Your task to perform on an android device: toggle pop-ups in chrome Image 0: 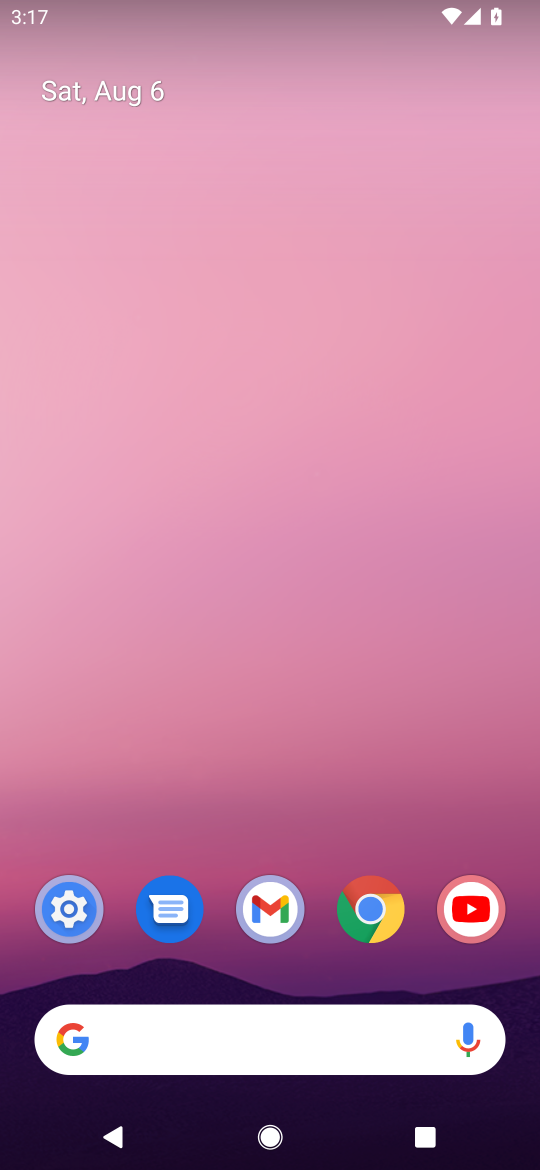
Step 0: click (360, 915)
Your task to perform on an android device: toggle pop-ups in chrome Image 1: 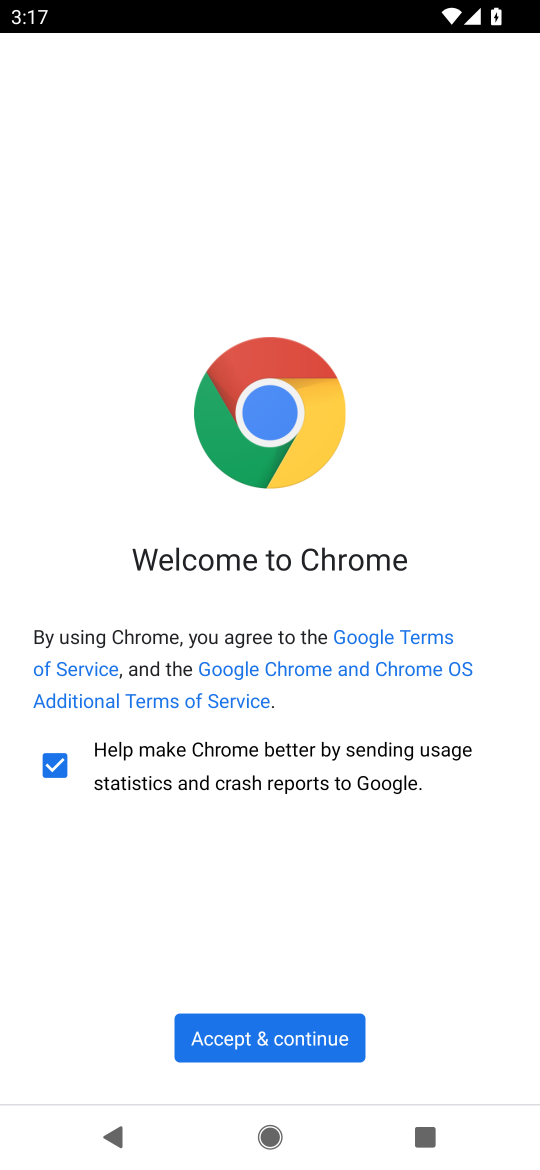
Step 1: click (318, 1042)
Your task to perform on an android device: toggle pop-ups in chrome Image 2: 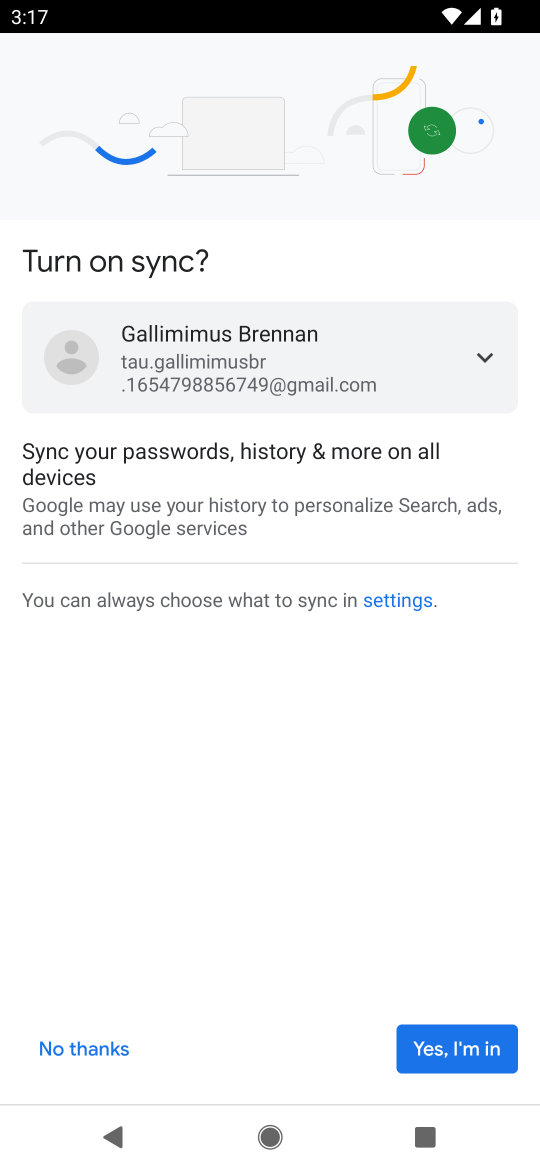
Step 2: click (458, 1043)
Your task to perform on an android device: toggle pop-ups in chrome Image 3: 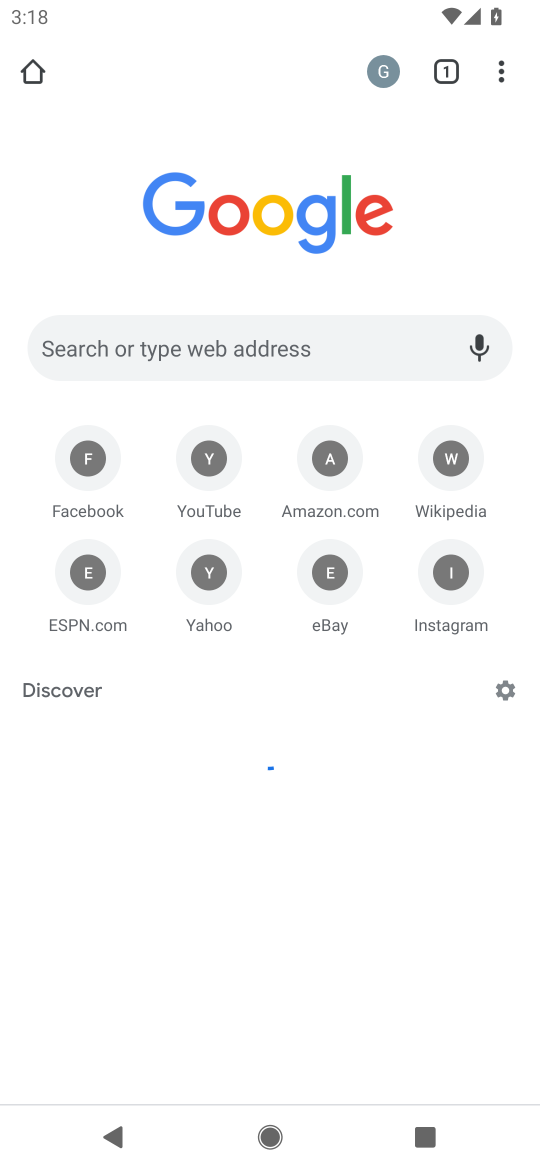
Step 3: drag from (498, 57) to (313, 658)
Your task to perform on an android device: toggle pop-ups in chrome Image 4: 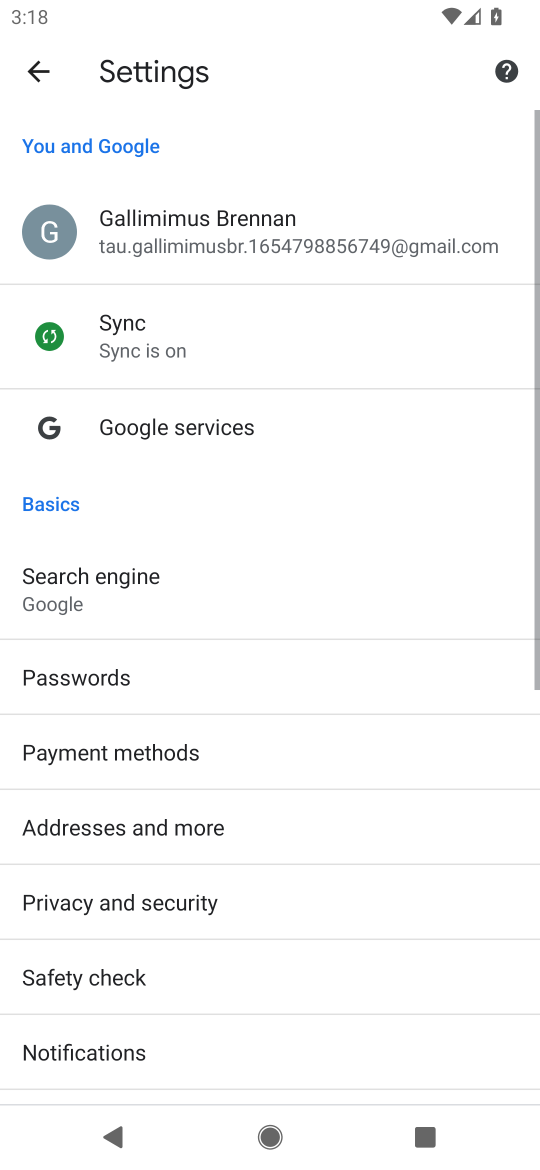
Step 4: drag from (189, 1013) to (331, 392)
Your task to perform on an android device: toggle pop-ups in chrome Image 5: 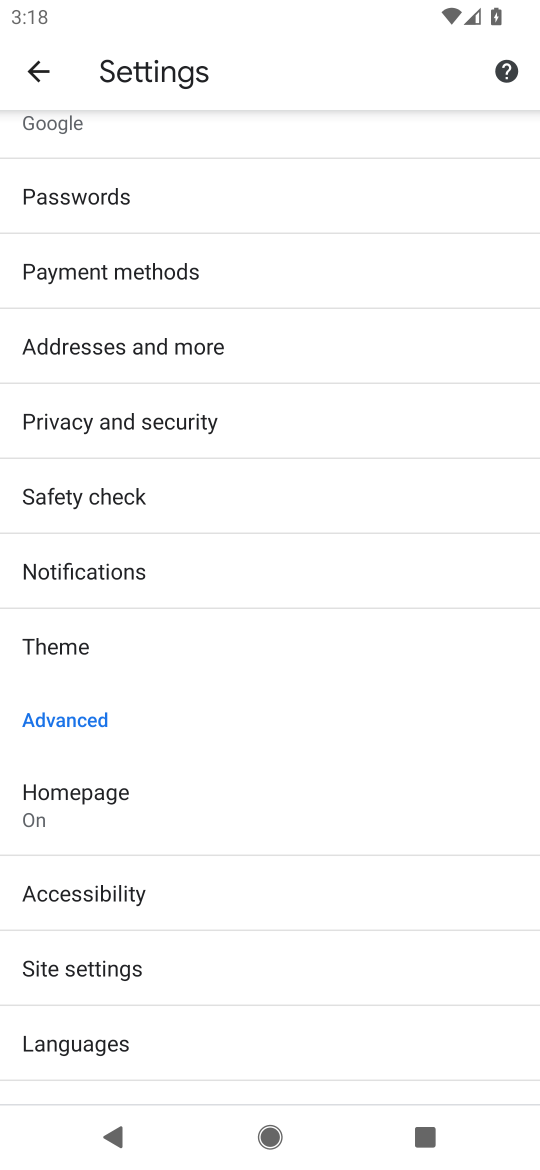
Step 5: click (117, 981)
Your task to perform on an android device: toggle pop-ups in chrome Image 6: 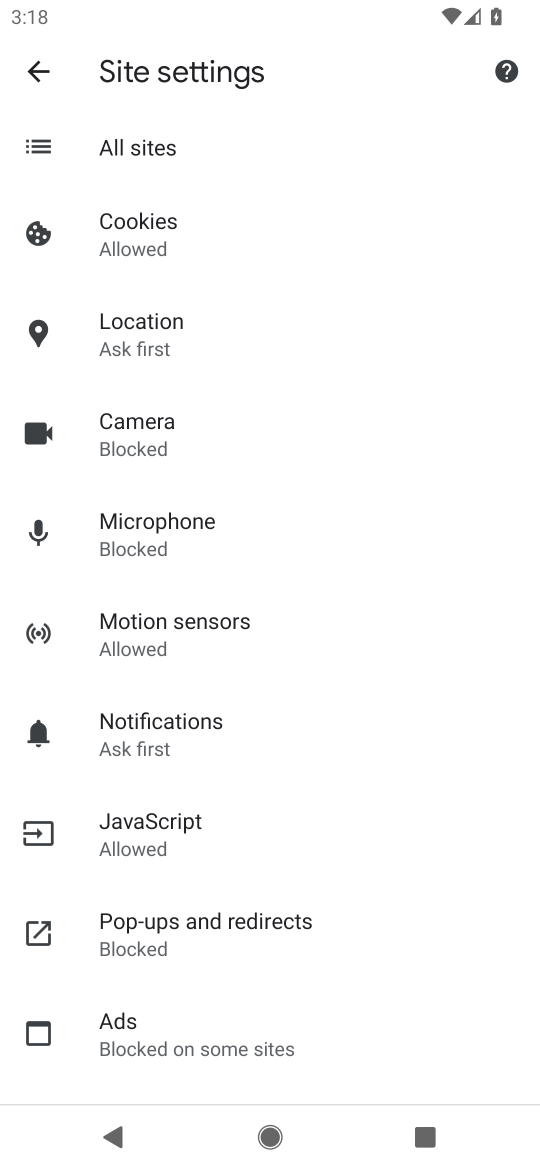
Step 6: click (192, 941)
Your task to perform on an android device: toggle pop-ups in chrome Image 7: 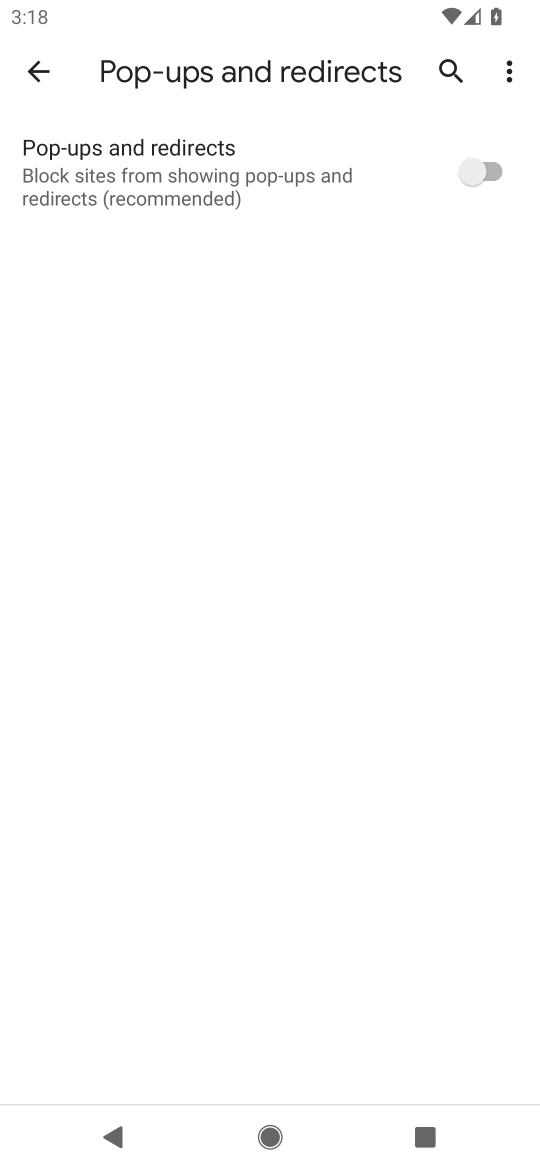
Step 7: click (462, 170)
Your task to perform on an android device: toggle pop-ups in chrome Image 8: 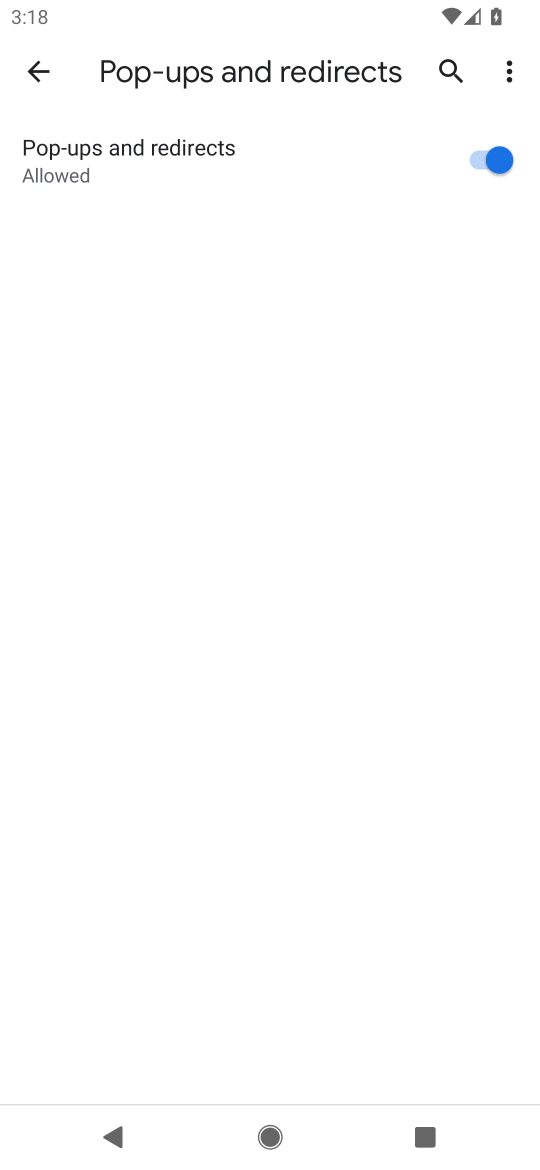
Step 8: task complete